Your task to perform on an android device: Open accessibility settings Image 0: 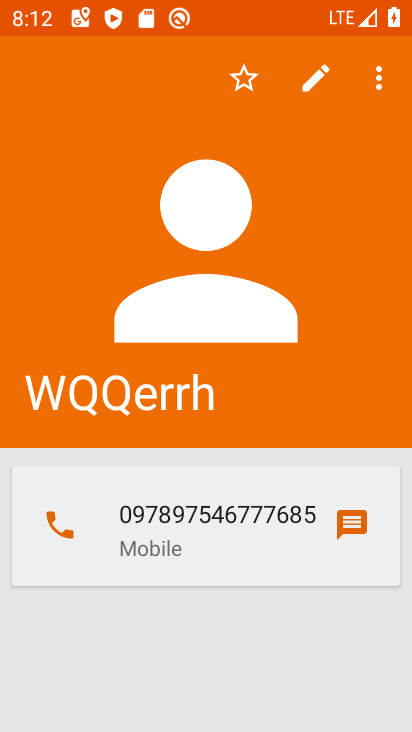
Step 0: press home button
Your task to perform on an android device: Open accessibility settings Image 1: 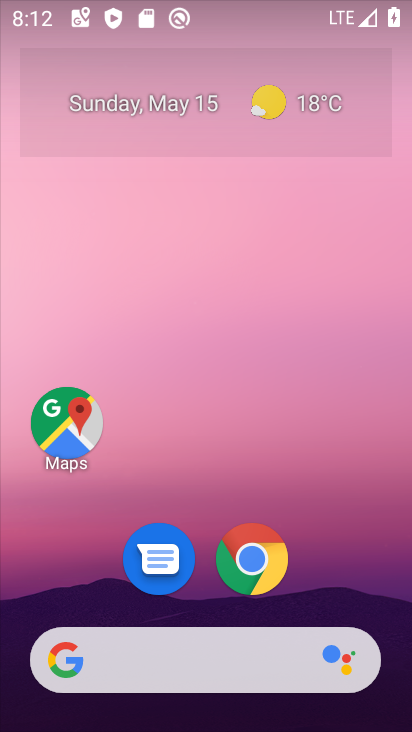
Step 1: drag from (327, 576) to (183, 14)
Your task to perform on an android device: Open accessibility settings Image 2: 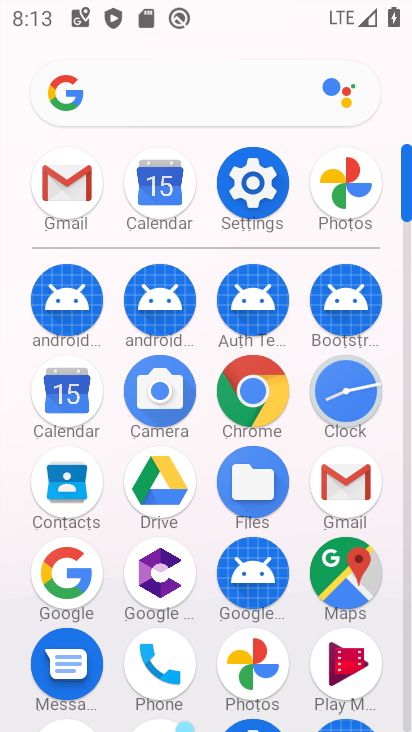
Step 2: click (253, 173)
Your task to perform on an android device: Open accessibility settings Image 3: 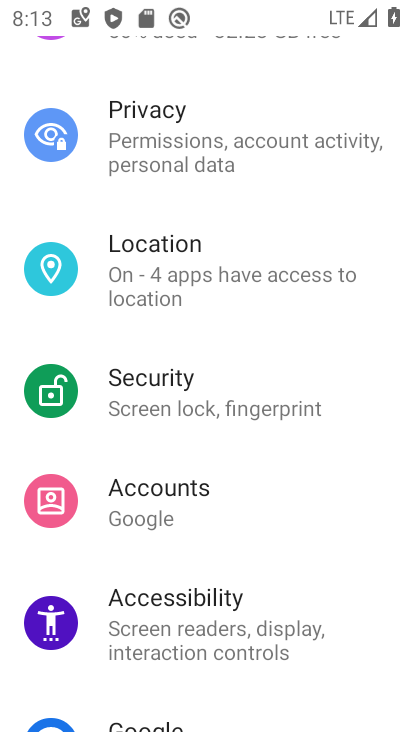
Step 3: click (170, 595)
Your task to perform on an android device: Open accessibility settings Image 4: 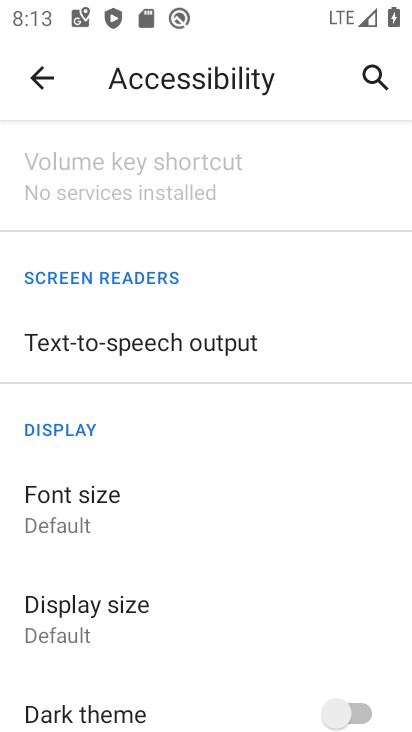
Step 4: task complete